Your task to perform on an android device: Open maps Image 0: 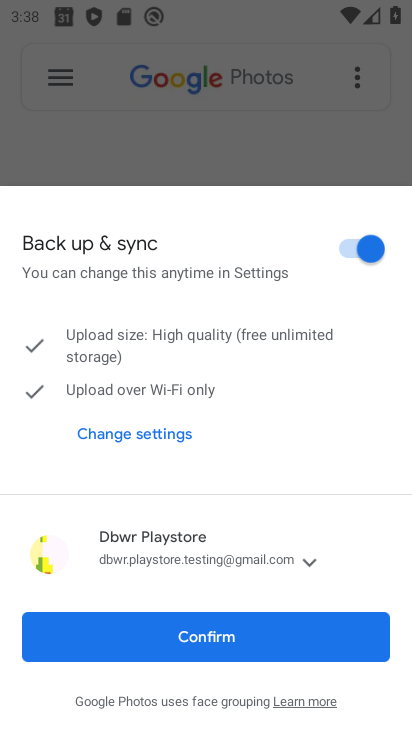
Step 0: press home button
Your task to perform on an android device: Open maps Image 1: 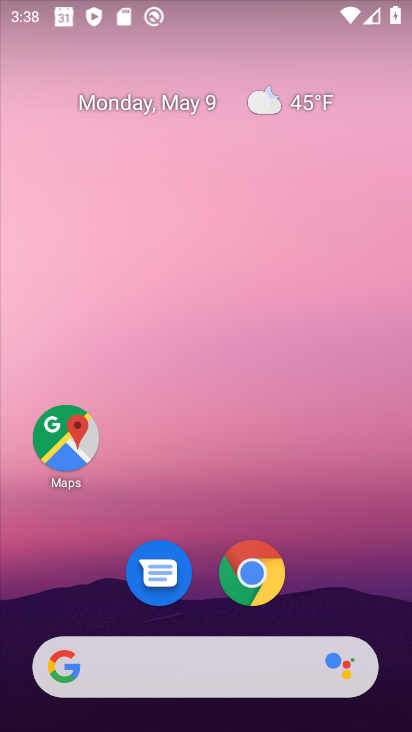
Step 1: click (61, 443)
Your task to perform on an android device: Open maps Image 2: 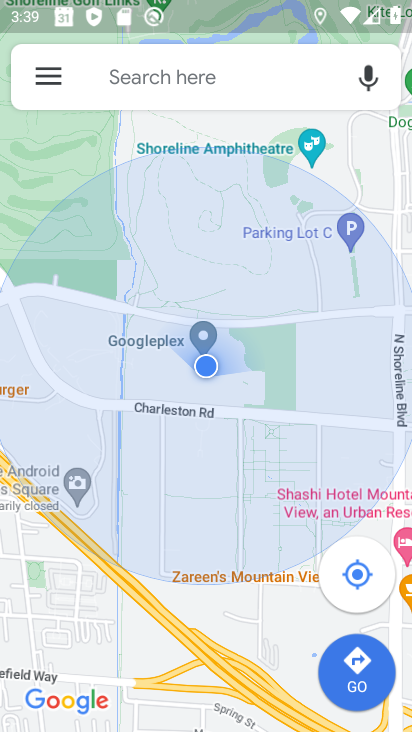
Step 2: task complete